Your task to perform on an android device: turn off sleep mode Image 0: 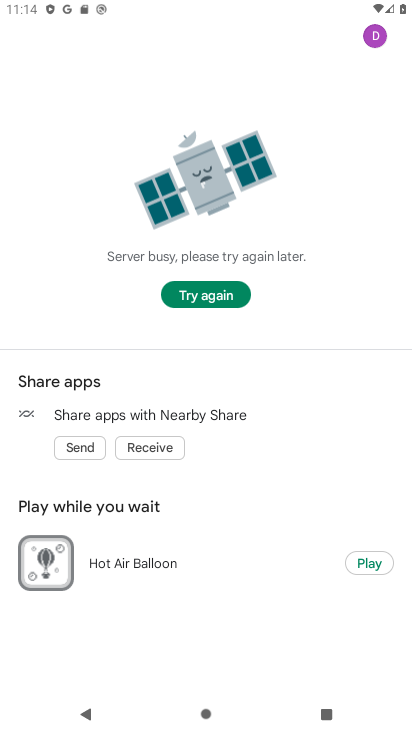
Step 0: press home button
Your task to perform on an android device: turn off sleep mode Image 1: 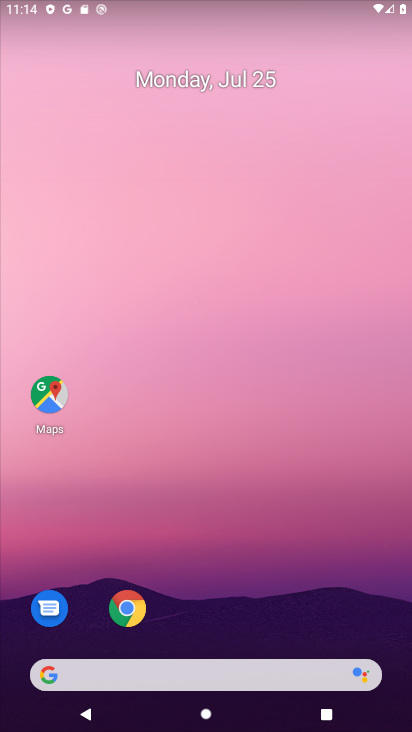
Step 1: drag from (195, 630) to (132, 42)
Your task to perform on an android device: turn off sleep mode Image 2: 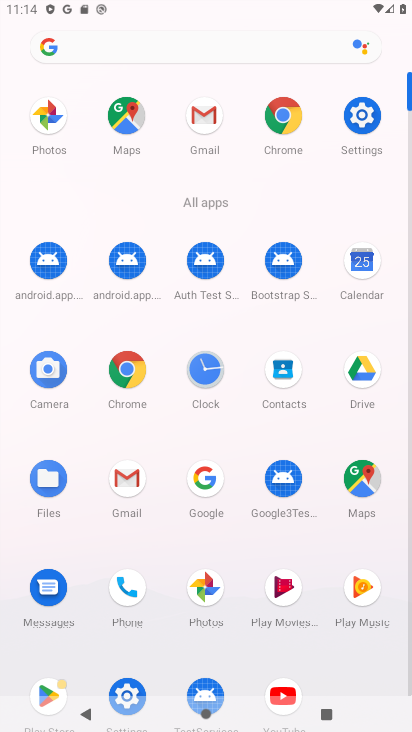
Step 2: click (372, 125)
Your task to perform on an android device: turn off sleep mode Image 3: 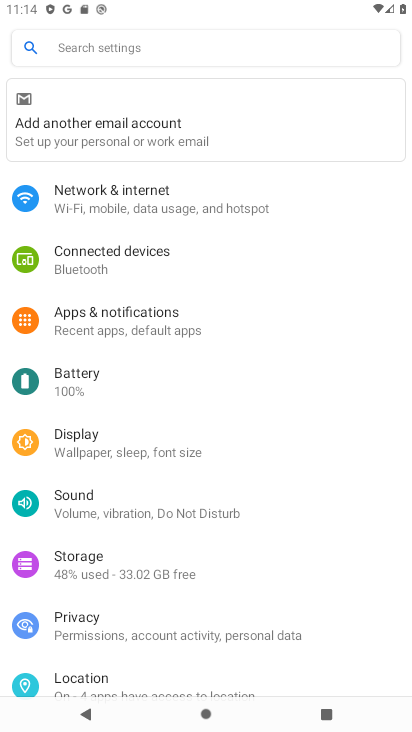
Step 3: task complete